Your task to perform on an android device: move a message to another label in the gmail app Image 0: 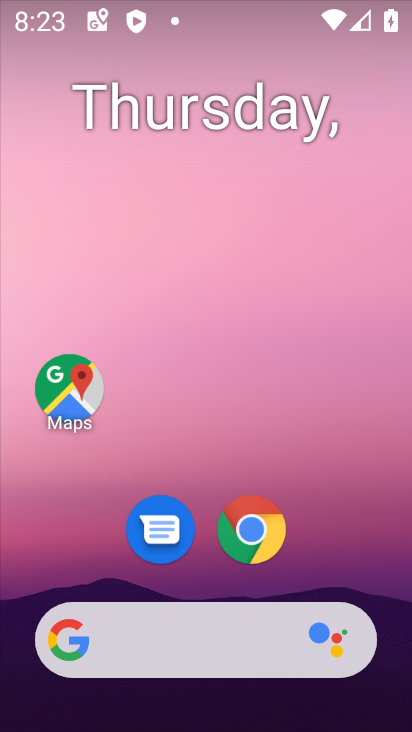
Step 0: drag from (254, 724) to (241, 127)
Your task to perform on an android device: move a message to another label in the gmail app Image 1: 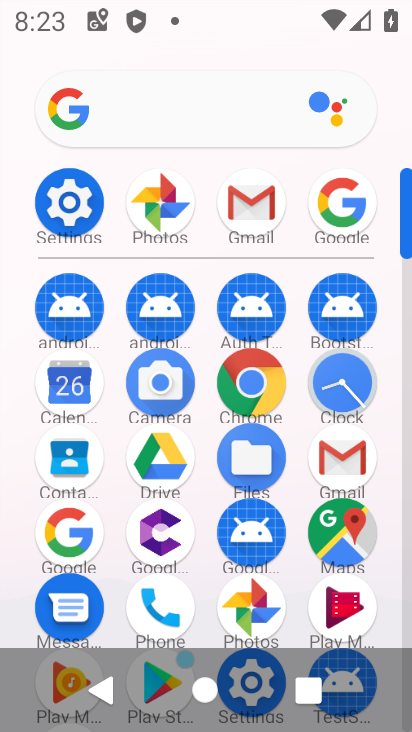
Step 1: click (338, 463)
Your task to perform on an android device: move a message to another label in the gmail app Image 2: 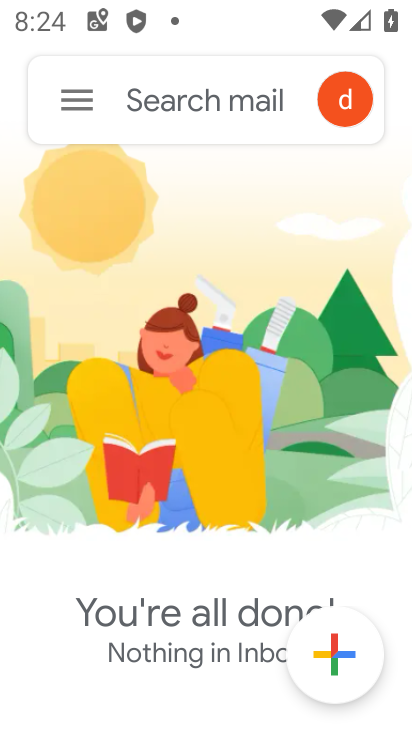
Step 2: task complete